Your task to perform on an android device: turn on wifi Image 0: 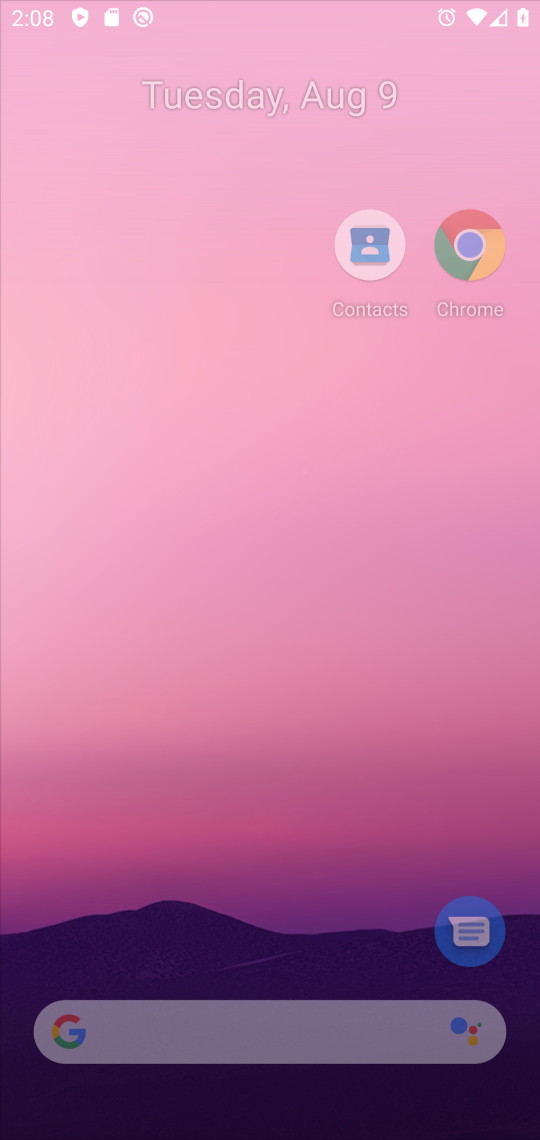
Step 0: drag from (444, 954) to (435, 603)
Your task to perform on an android device: turn on wifi Image 1: 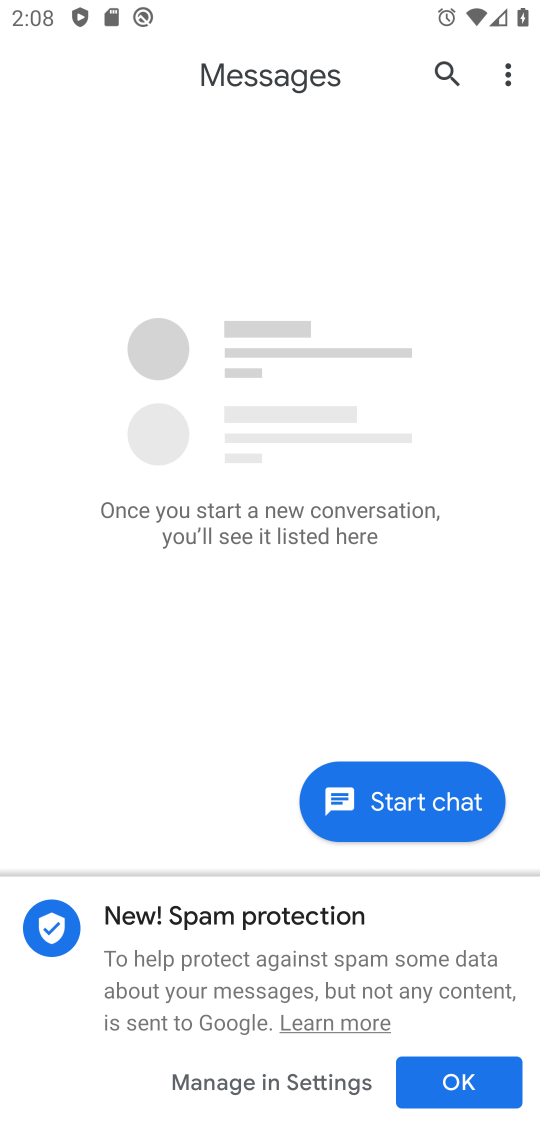
Step 1: press home button
Your task to perform on an android device: turn on wifi Image 2: 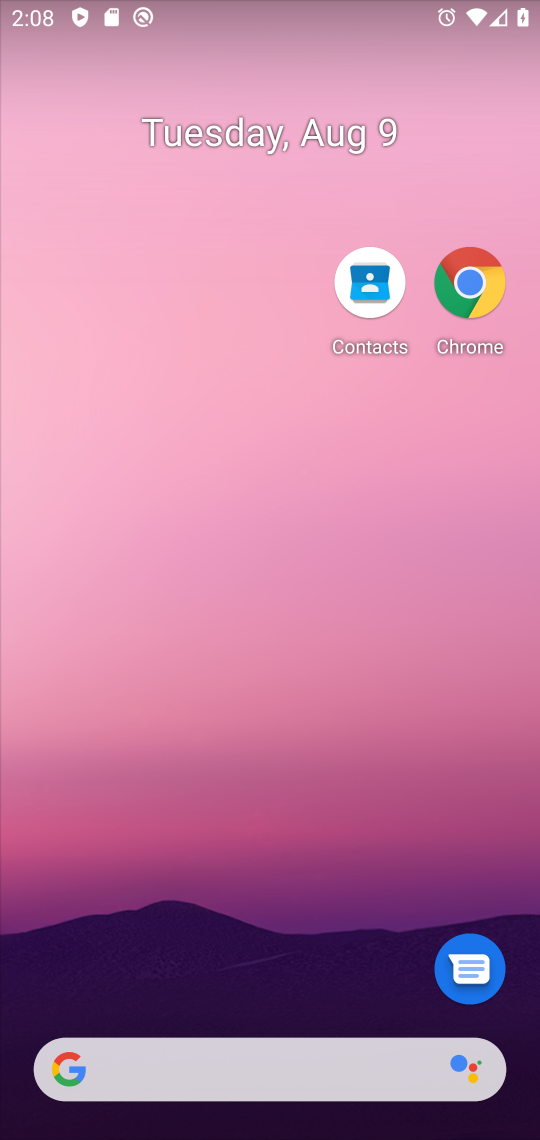
Step 2: drag from (237, 977) to (361, 0)
Your task to perform on an android device: turn on wifi Image 3: 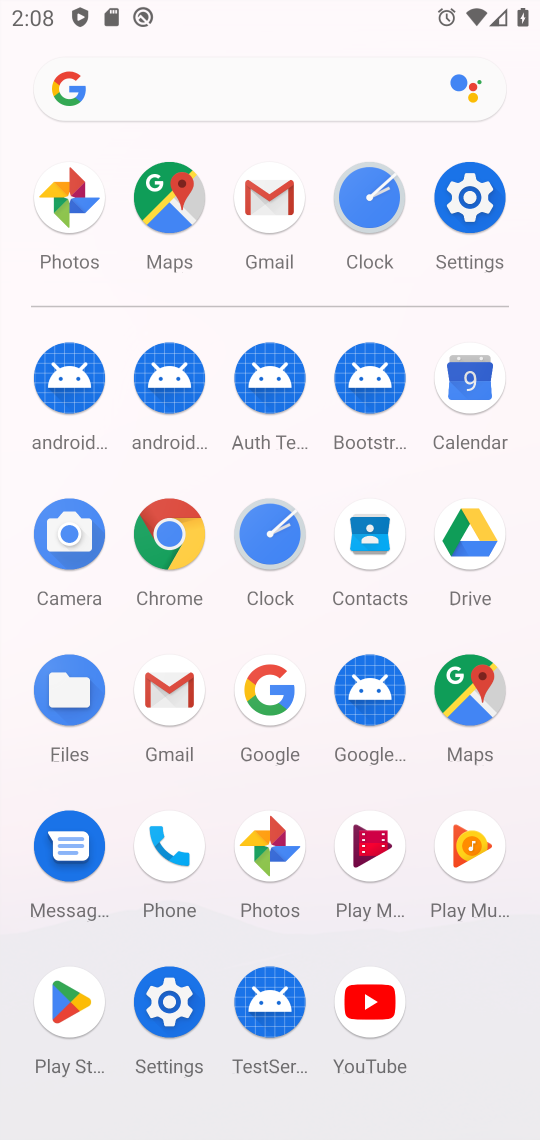
Step 3: click (182, 968)
Your task to perform on an android device: turn on wifi Image 4: 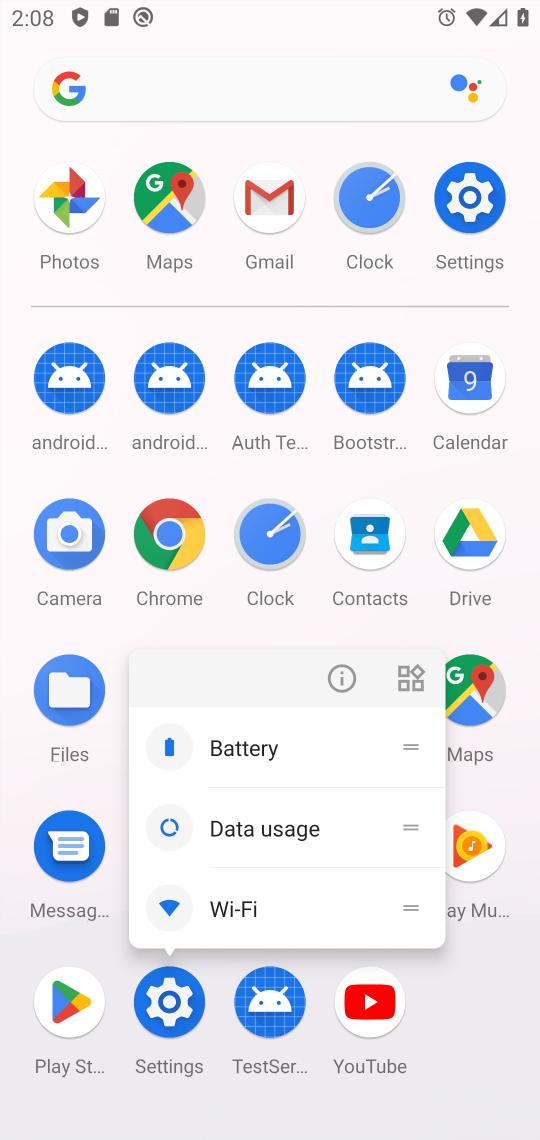
Step 4: click (336, 684)
Your task to perform on an android device: turn on wifi Image 5: 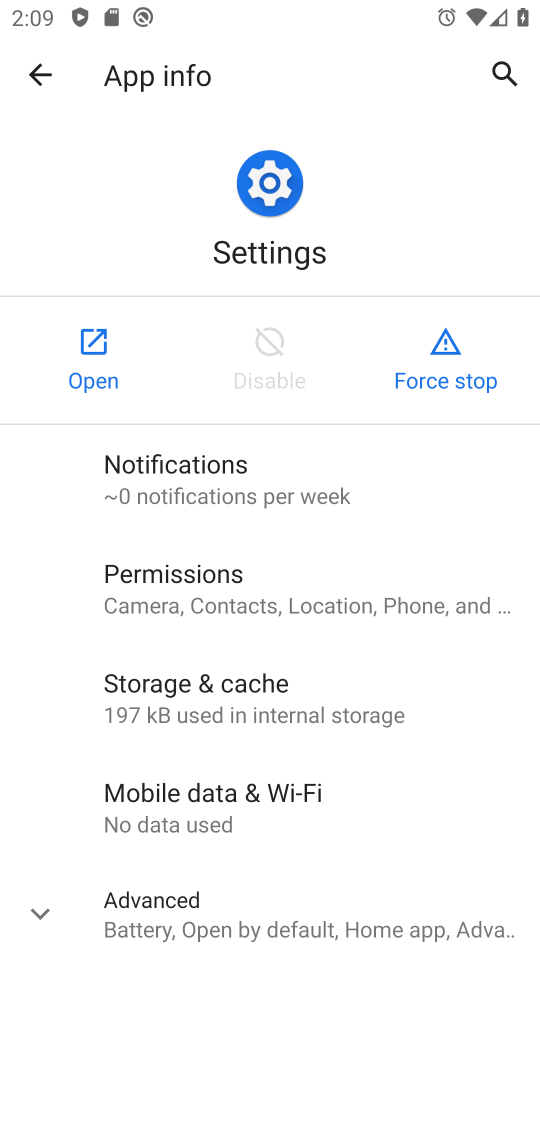
Step 5: click (103, 330)
Your task to perform on an android device: turn on wifi Image 6: 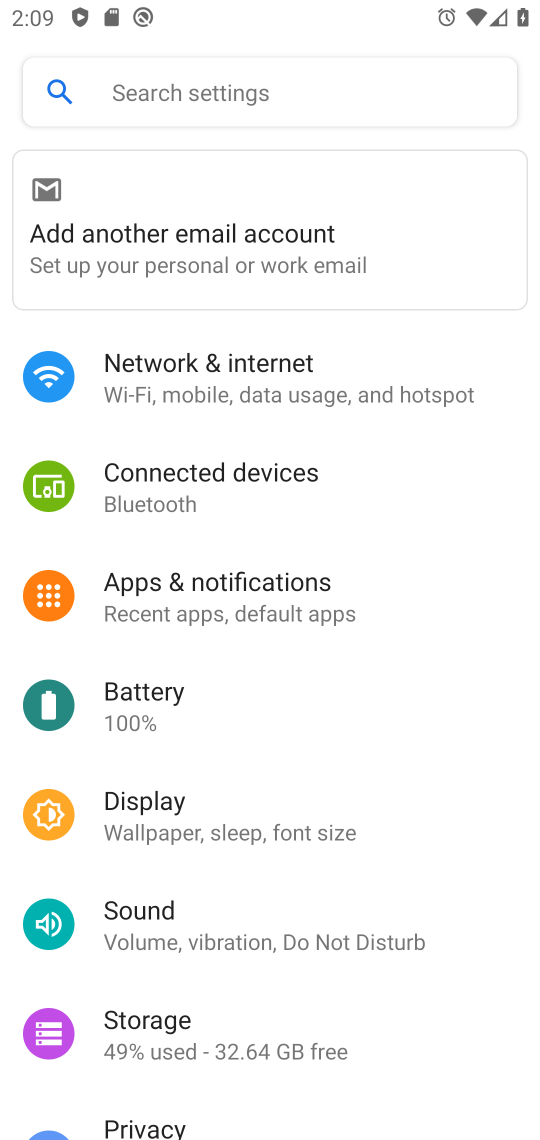
Step 6: click (238, 405)
Your task to perform on an android device: turn on wifi Image 7: 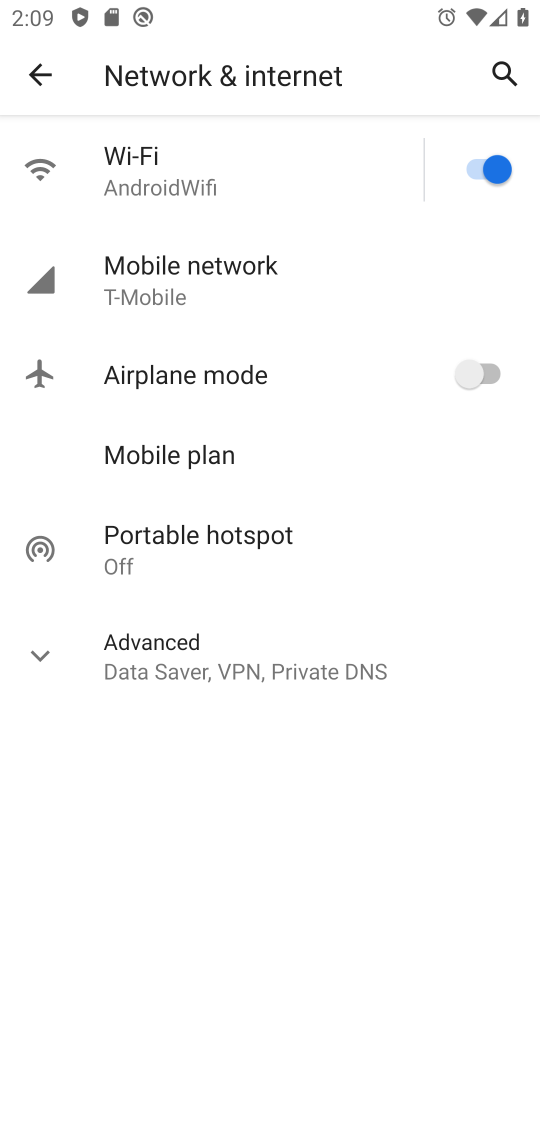
Step 7: click (259, 189)
Your task to perform on an android device: turn on wifi Image 8: 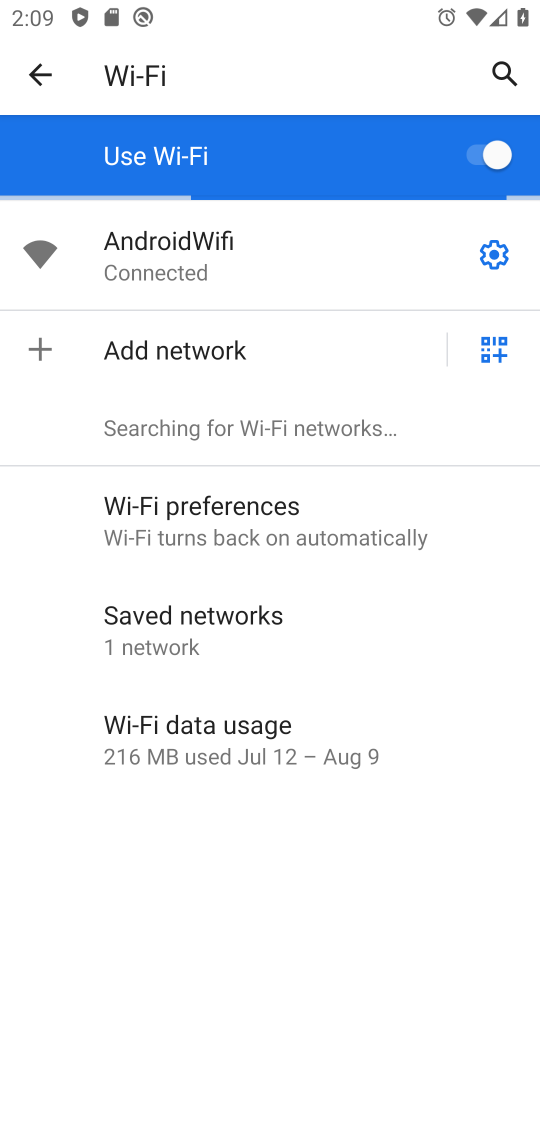
Step 8: task complete